Your task to perform on an android device: open app "Microsoft Outlook" Image 0: 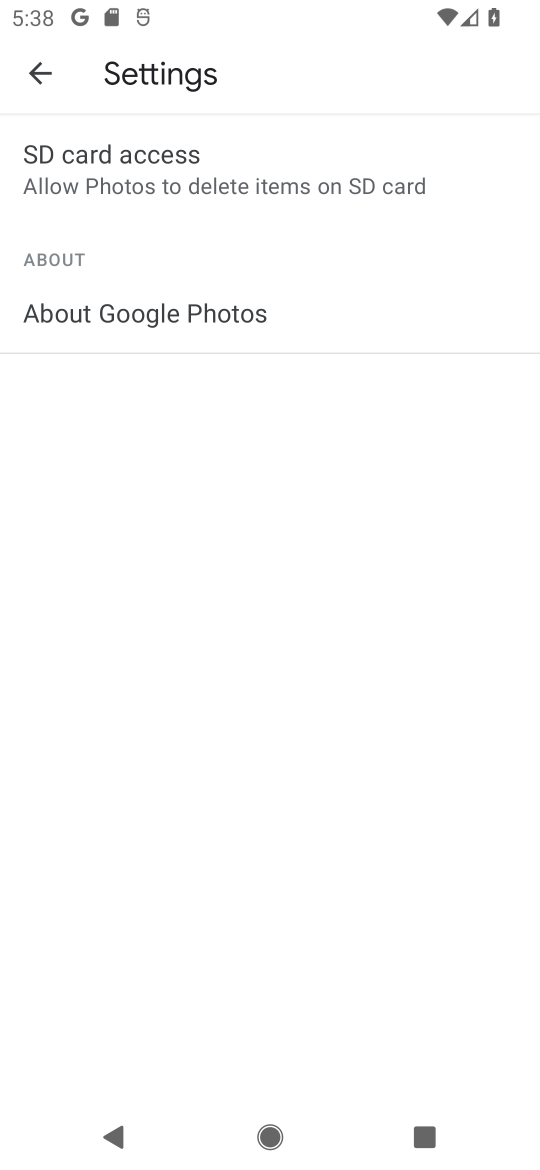
Step 0: press home button
Your task to perform on an android device: open app "Microsoft Outlook" Image 1: 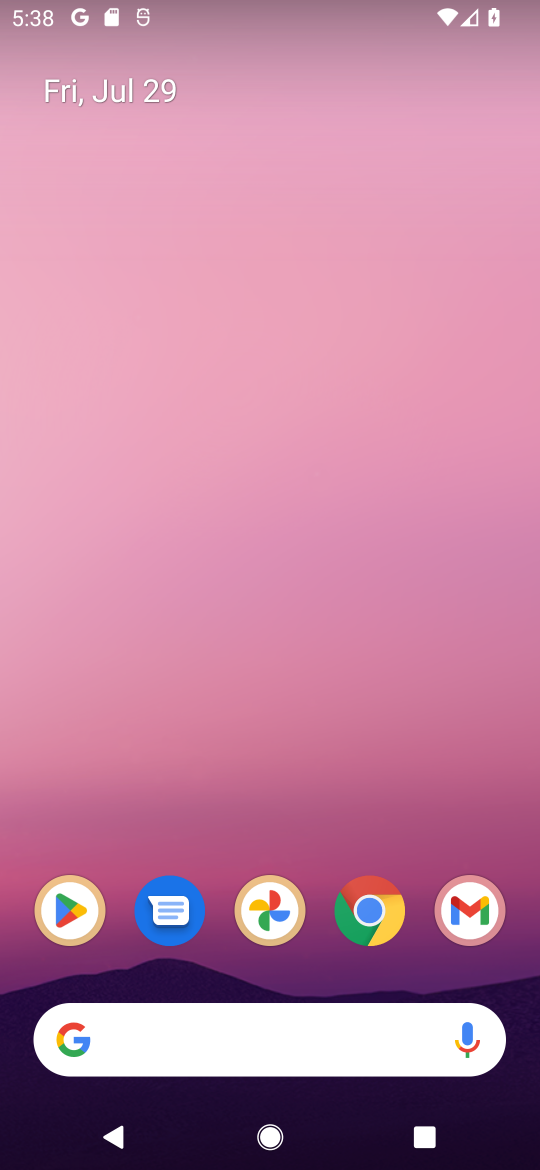
Step 1: click (59, 912)
Your task to perform on an android device: open app "Microsoft Outlook" Image 2: 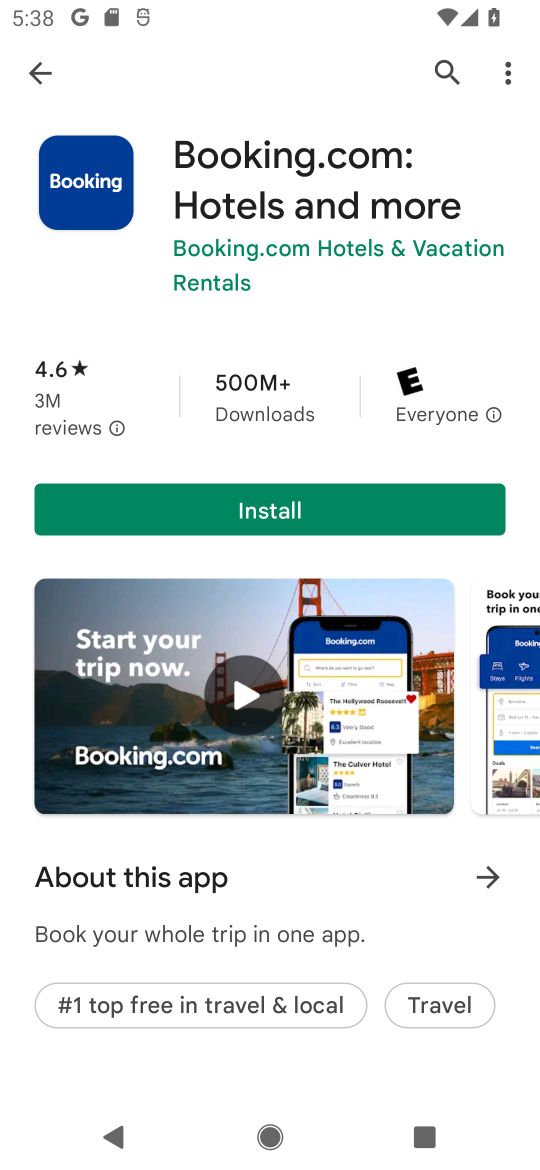
Step 2: click (455, 64)
Your task to perform on an android device: open app "Microsoft Outlook" Image 3: 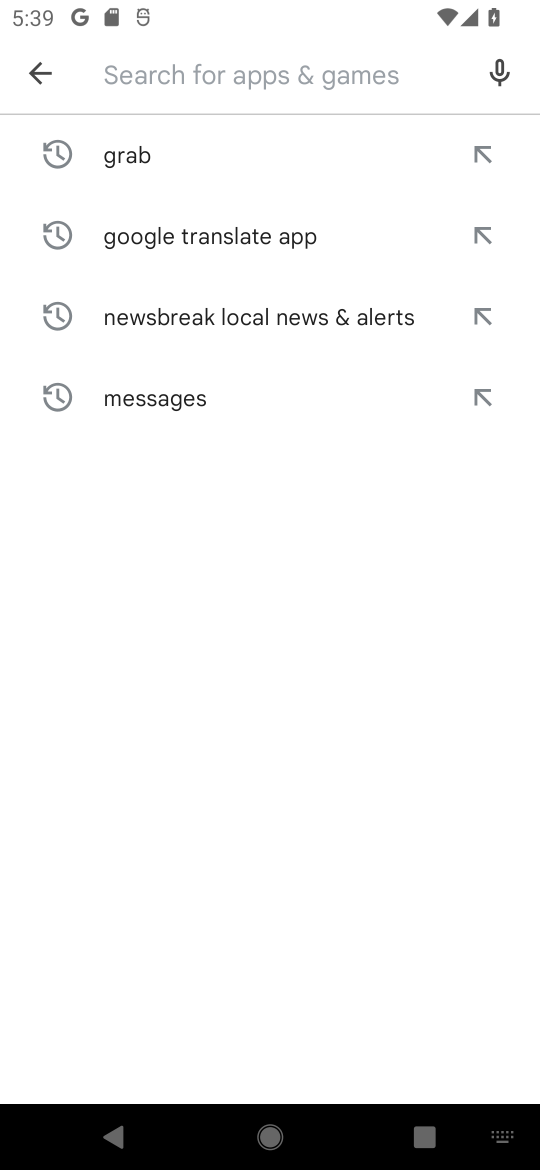
Step 3: type "microsoft outlook"
Your task to perform on an android device: open app "Microsoft Outlook" Image 4: 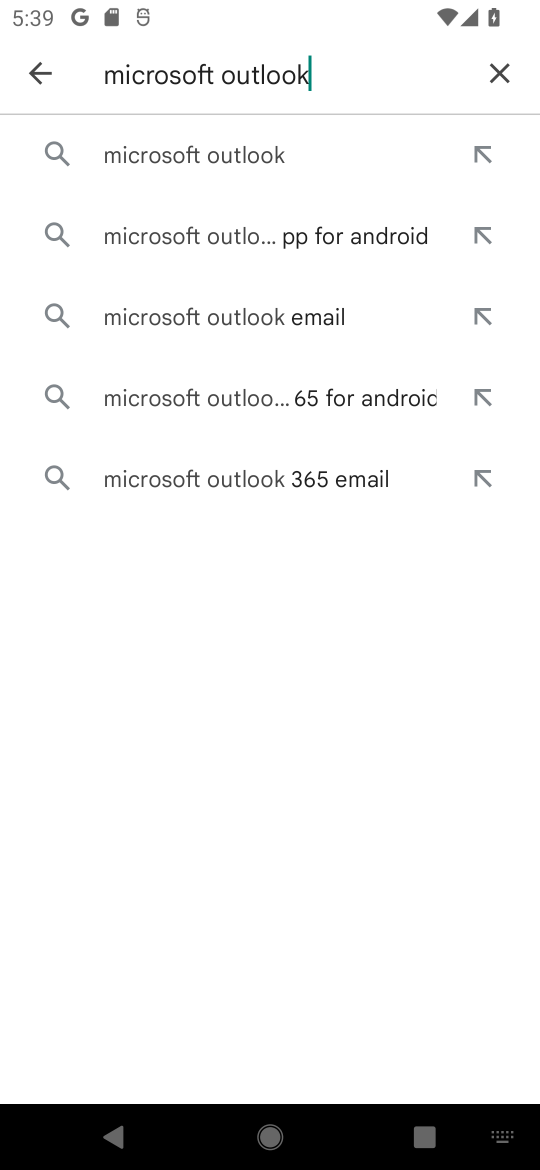
Step 4: click (196, 138)
Your task to perform on an android device: open app "Microsoft Outlook" Image 5: 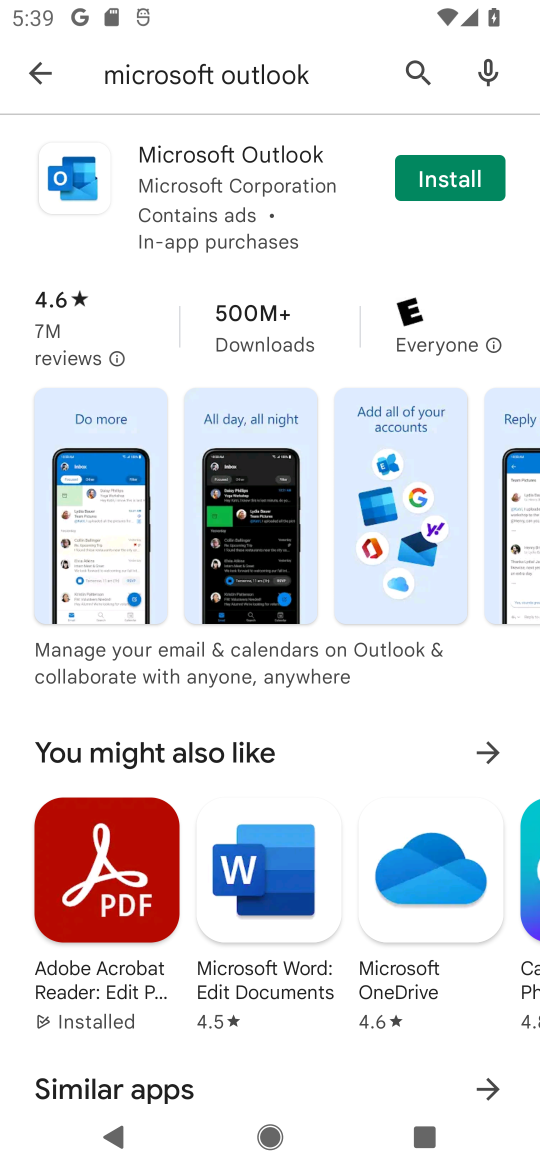
Step 5: click (206, 131)
Your task to perform on an android device: open app "Microsoft Outlook" Image 6: 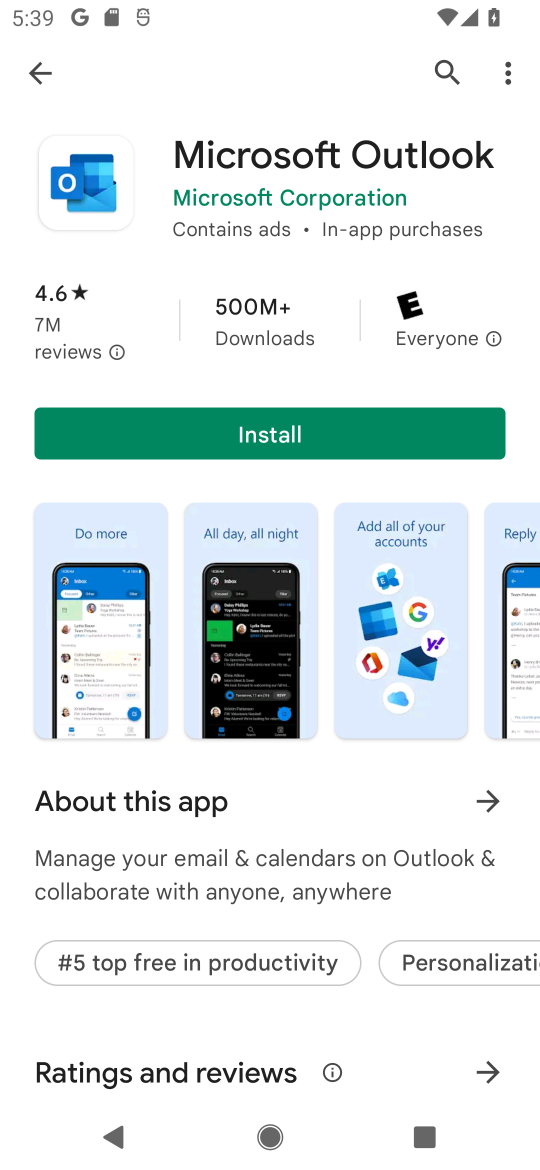
Step 6: task complete